Your task to perform on an android device: When is my next meeting? Image 0: 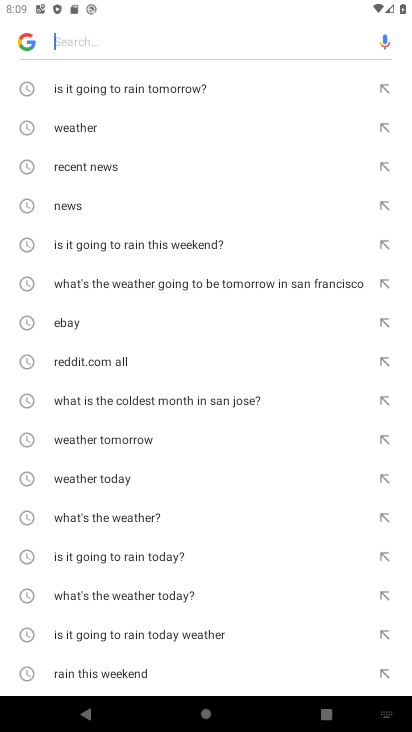
Step 0: press home button
Your task to perform on an android device: When is my next meeting? Image 1: 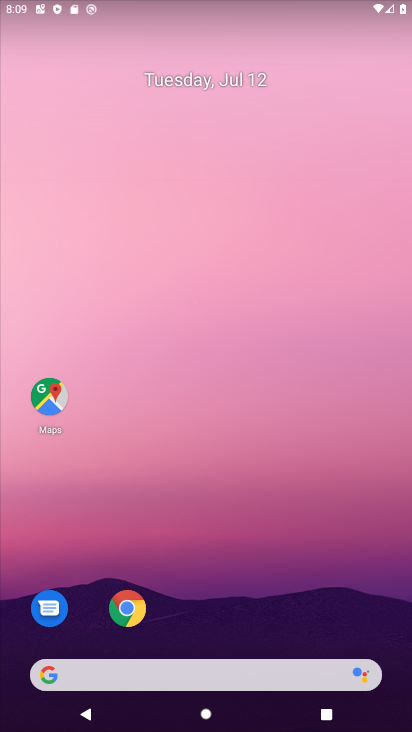
Step 1: click (185, 71)
Your task to perform on an android device: When is my next meeting? Image 2: 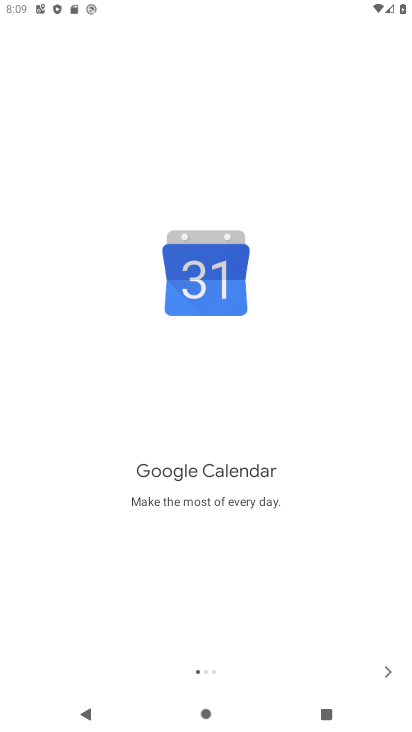
Step 2: click (391, 667)
Your task to perform on an android device: When is my next meeting? Image 3: 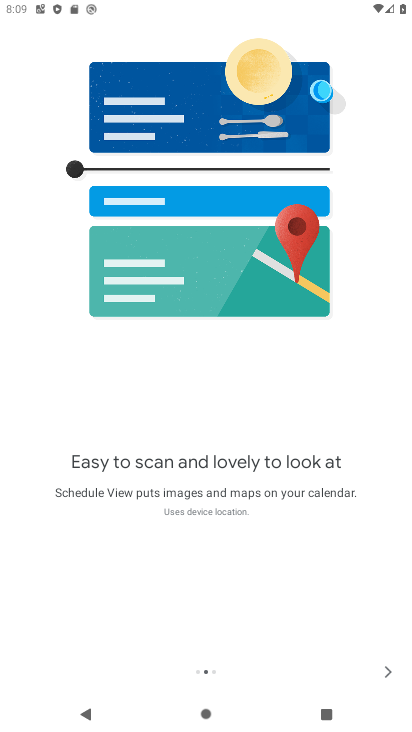
Step 3: click (391, 667)
Your task to perform on an android device: When is my next meeting? Image 4: 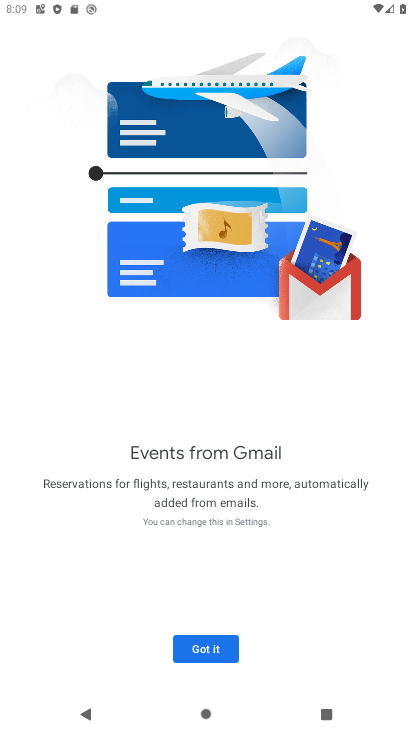
Step 4: click (218, 646)
Your task to perform on an android device: When is my next meeting? Image 5: 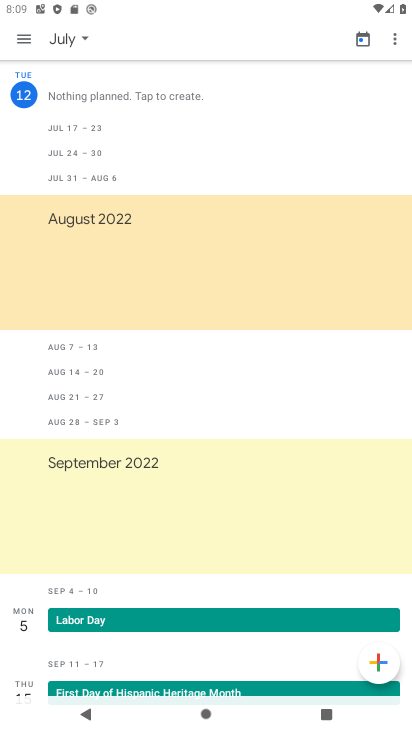
Step 5: click (218, 646)
Your task to perform on an android device: When is my next meeting? Image 6: 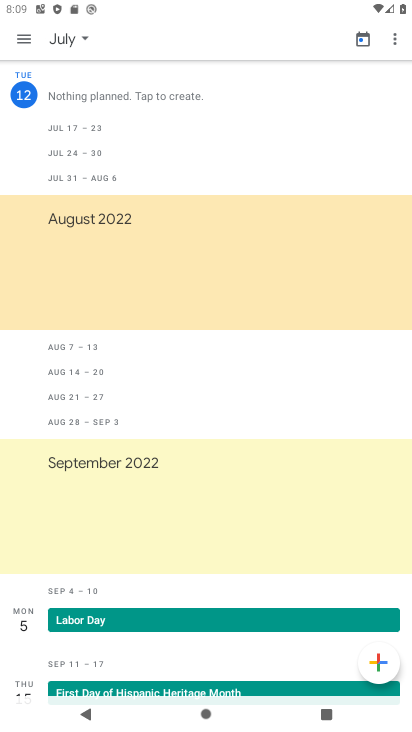
Step 6: task complete